Your task to perform on an android device: What's the weather going to be tomorrow? Image 0: 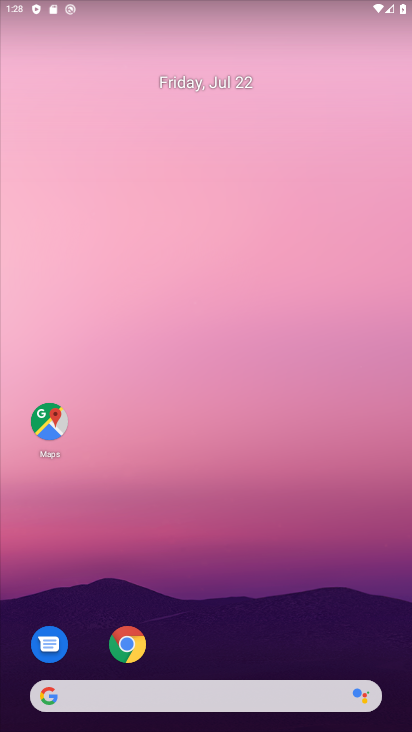
Step 0: drag from (124, 648) to (148, 314)
Your task to perform on an android device: What's the weather going to be tomorrow? Image 1: 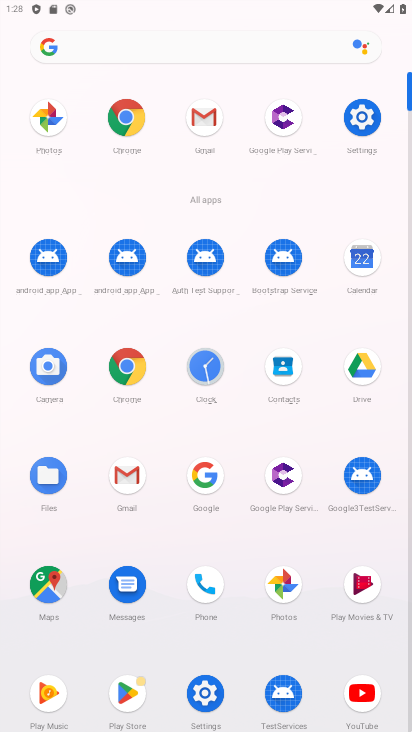
Step 1: click (117, 108)
Your task to perform on an android device: What's the weather going to be tomorrow? Image 2: 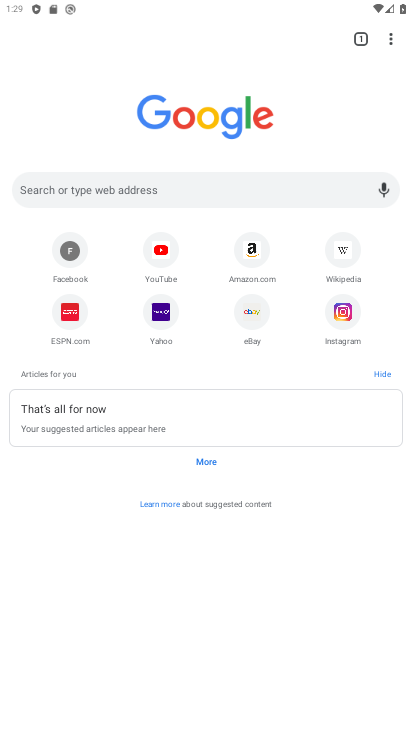
Step 2: click (196, 183)
Your task to perform on an android device: What's the weather going to be tomorrow? Image 3: 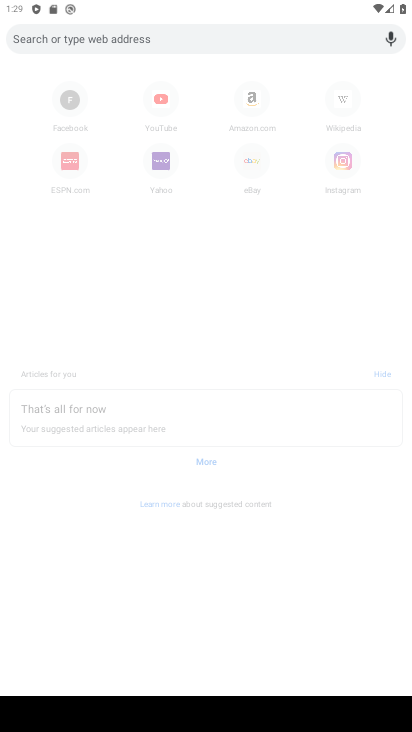
Step 3: type "What is the news today "
Your task to perform on an android device: What's the weather going to be tomorrow? Image 4: 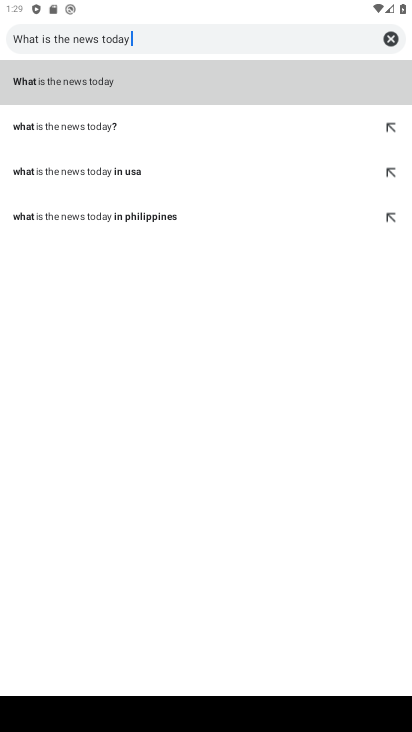
Step 4: click (123, 80)
Your task to perform on an android device: What's the weather going to be tomorrow? Image 5: 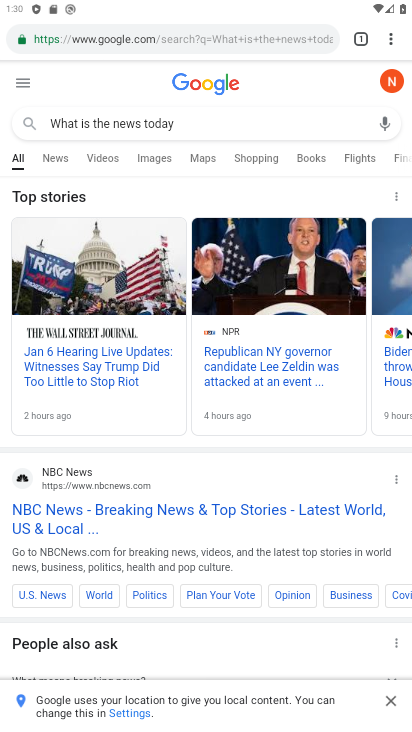
Step 5: click (391, 34)
Your task to perform on an android device: What's the weather going to be tomorrow? Image 6: 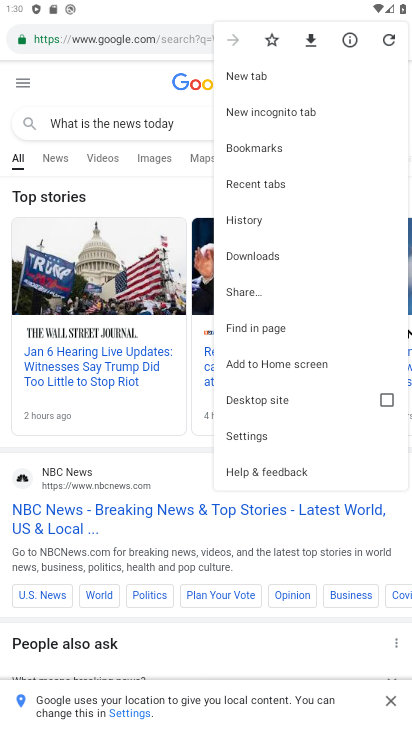
Step 6: click (263, 69)
Your task to perform on an android device: What's the weather going to be tomorrow? Image 7: 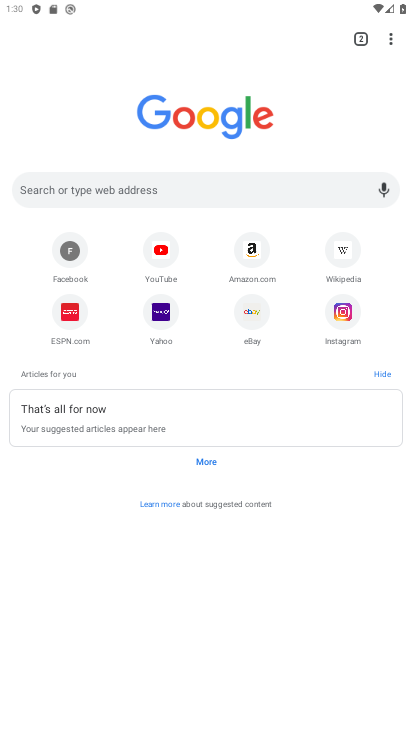
Step 7: click (127, 185)
Your task to perform on an android device: What's the weather going to be tomorrow? Image 8: 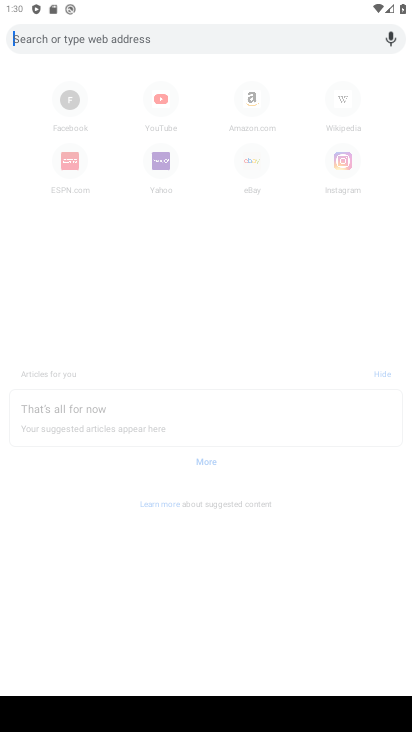
Step 8: type "What's the weather going to be tomorrow "
Your task to perform on an android device: What's the weather going to be tomorrow? Image 9: 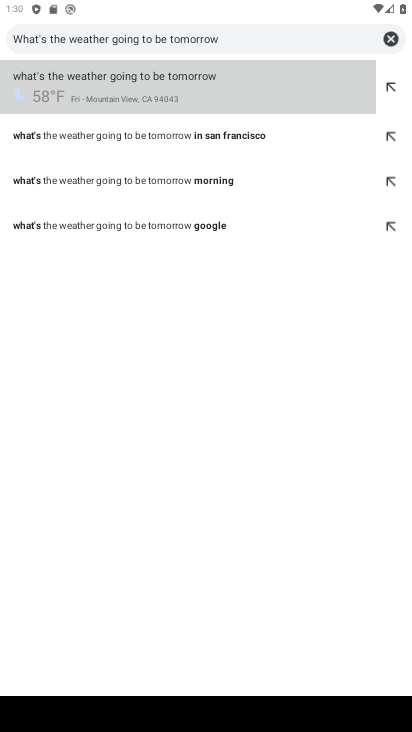
Step 9: click (118, 81)
Your task to perform on an android device: What's the weather going to be tomorrow? Image 10: 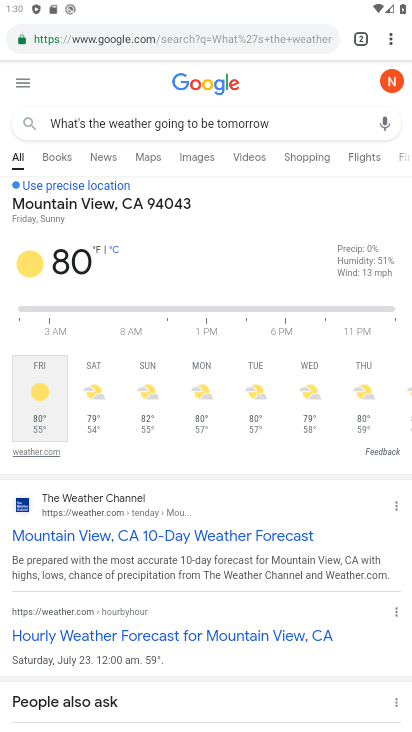
Step 10: task complete